Your task to perform on an android device: turn on the 12-hour format for clock Image 0: 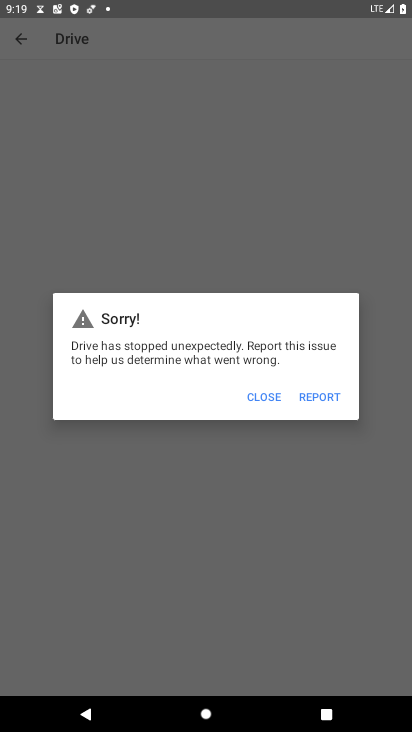
Step 0: press home button
Your task to perform on an android device: turn on the 12-hour format for clock Image 1: 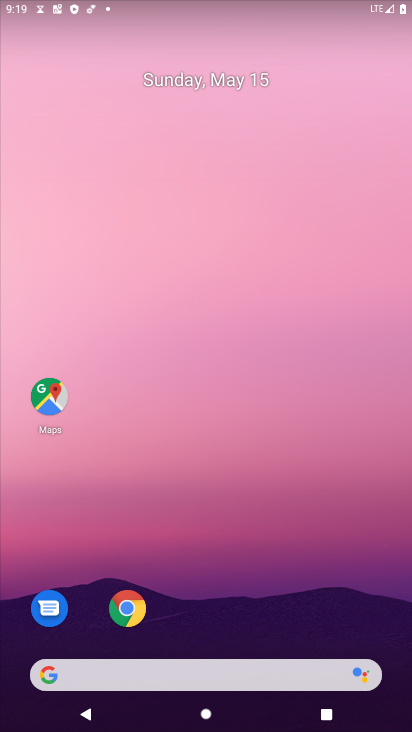
Step 1: drag from (282, 553) to (211, 0)
Your task to perform on an android device: turn on the 12-hour format for clock Image 2: 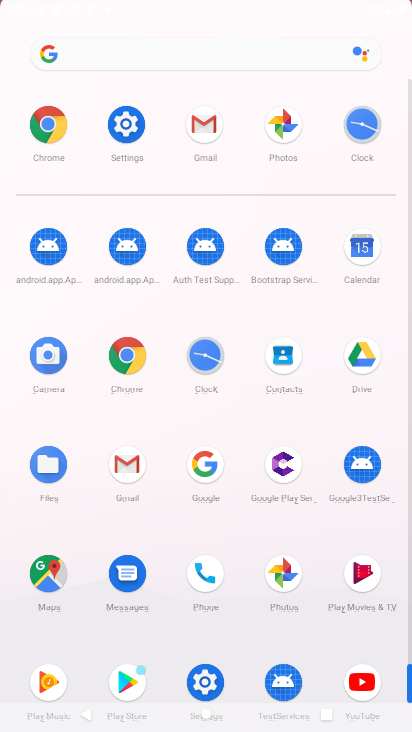
Step 2: click (366, 210)
Your task to perform on an android device: turn on the 12-hour format for clock Image 3: 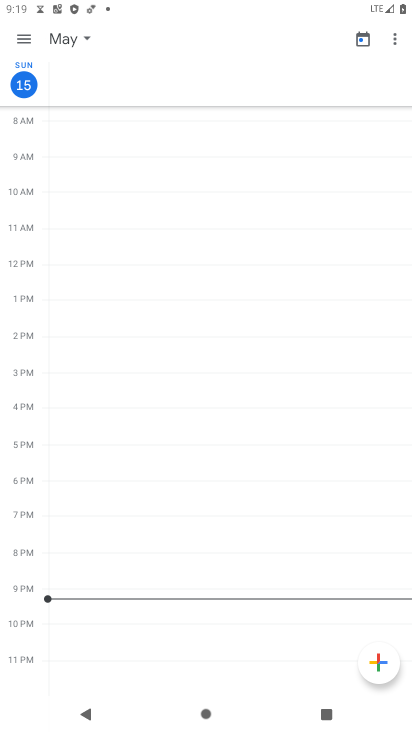
Step 3: press home button
Your task to perform on an android device: turn on the 12-hour format for clock Image 4: 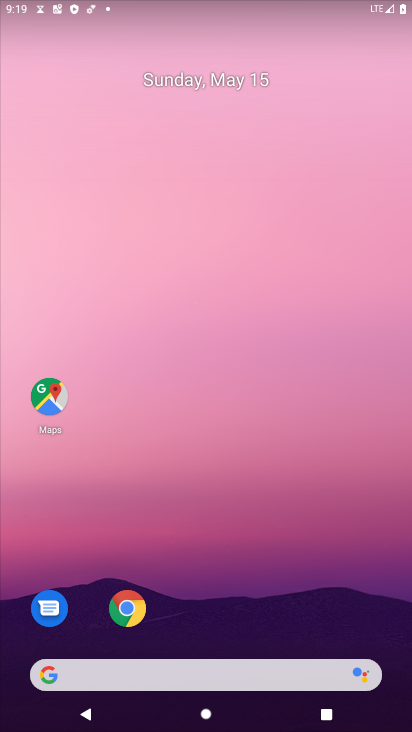
Step 4: drag from (312, 543) to (223, 4)
Your task to perform on an android device: turn on the 12-hour format for clock Image 5: 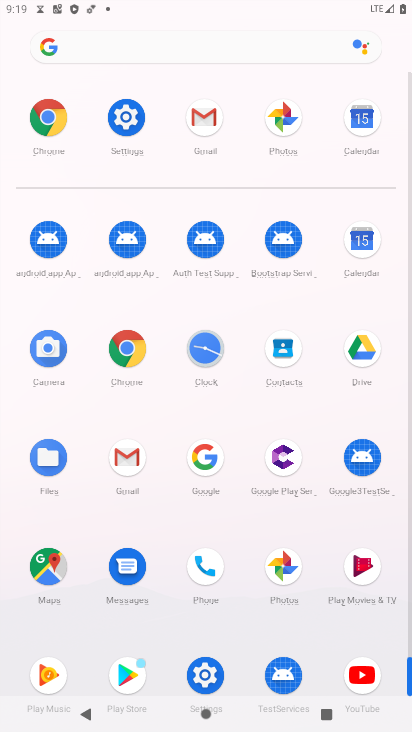
Step 5: click (201, 343)
Your task to perform on an android device: turn on the 12-hour format for clock Image 6: 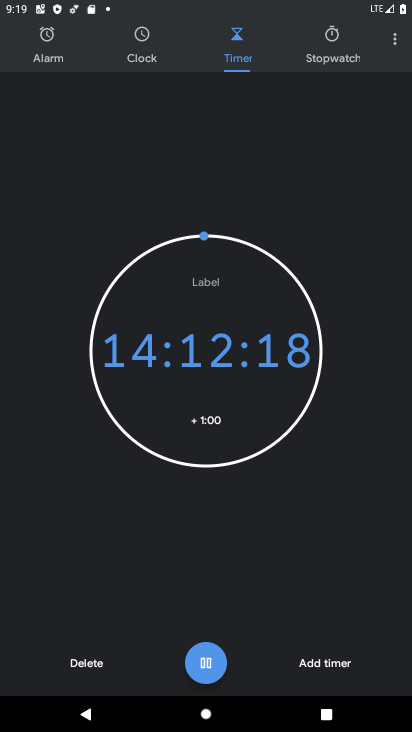
Step 6: click (398, 36)
Your task to perform on an android device: turn on the 12-hour format for clock Image 7: 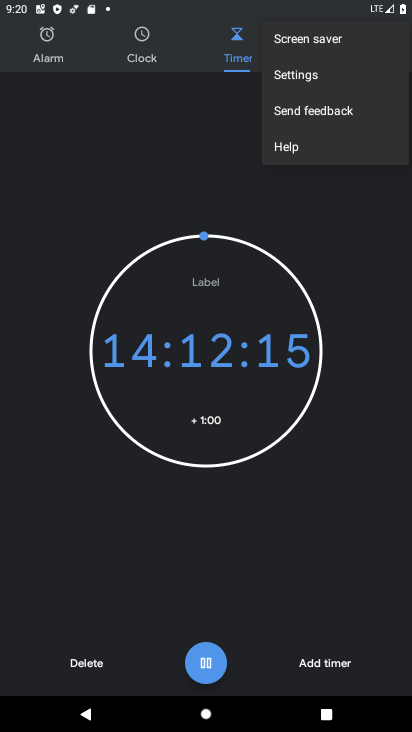
Step 7: click (320, 77)
Your task to perform on an android device: turn on the 12-hour format for clock Image 8: 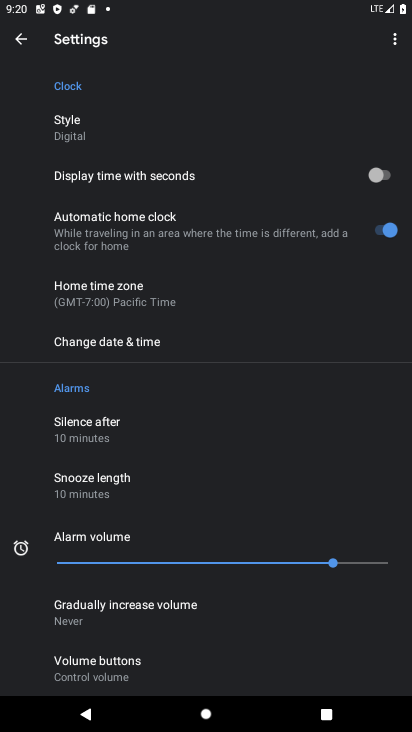
Step 8: drag from (176, 568) to (123, 258)
Your task to perform on an android device: turn on the 12-hour format for clock Image 9: 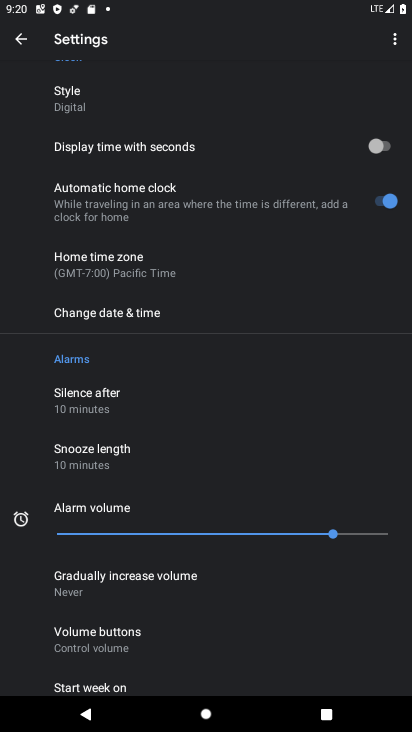
Step 9: drag from (144, 646) to (64, 323)
Your task to perform on an android device: turn on the 12-hour format for clock Image 10: 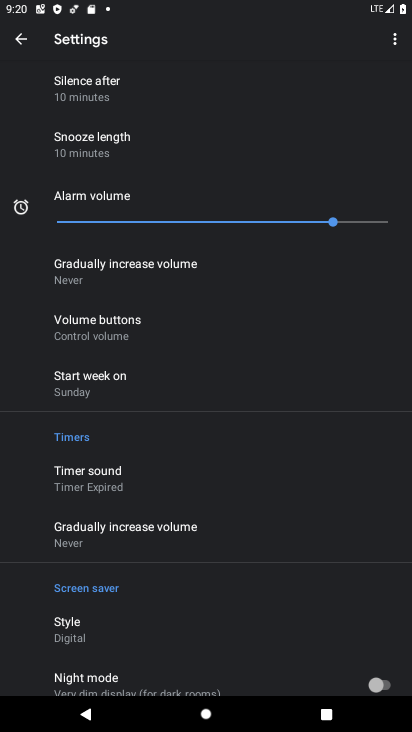
Step 10: drag from (169, 155) to (209, 496)
Your task to perform on an android device: turn on the 12-hour format for clock Image 11: 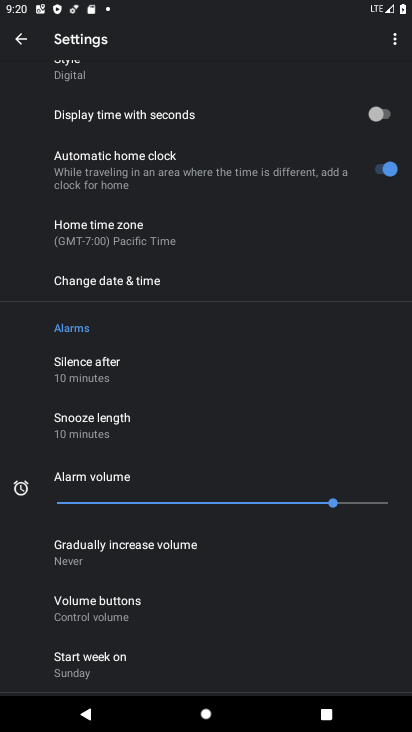
Step 11: drag from (178, 634) to (83, 250)
Your task to perform on an android device: turn on the 12-hour format for clock Image 12: 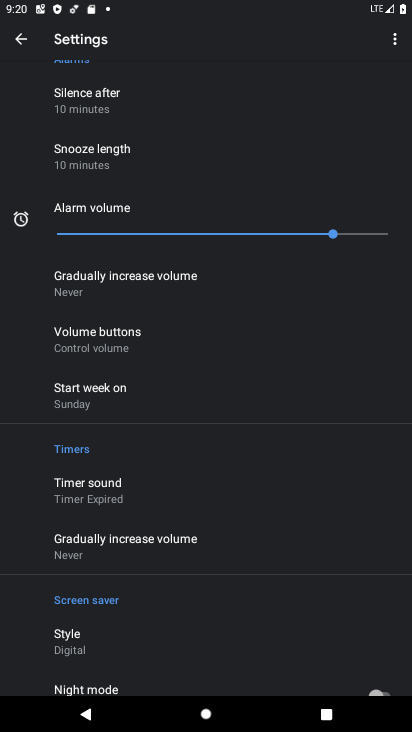
Step 12: drag from (130, 637) to (109, 240)
Your task to perform on an android device: turn on the 12-hour format for clock Image 13: 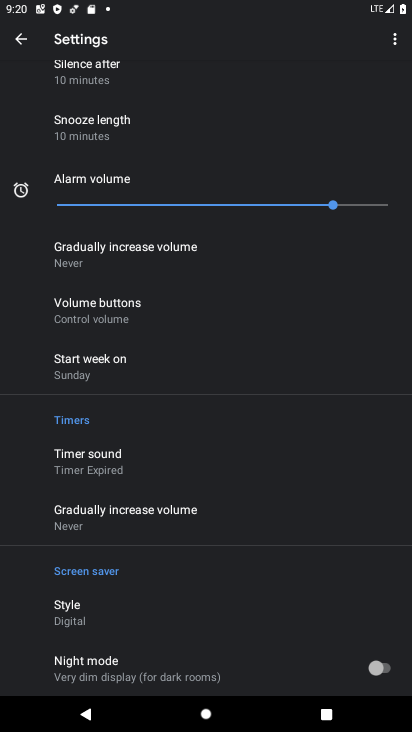
Step 13: drag from (160, 630) to (116, 310)
Your task to perform on an android device: turn on the 12-hour format for clock Image 14: 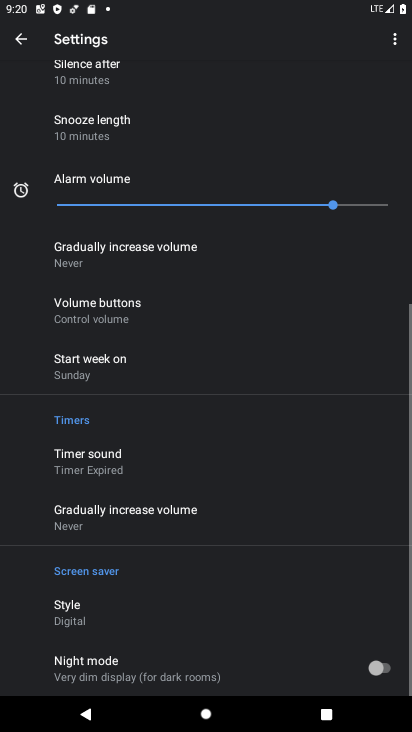
Step 14: drag from (179, 244) to (212, 595)
Your task to perform on an android device: turn on the 12-hour format for clock Image 15: 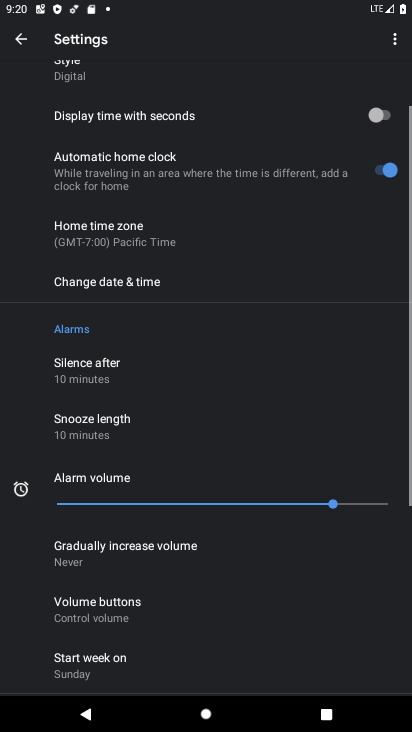
Step 15: drag from (217, 147) to (221, 584)
Your task to perform on an android device: turn on the 12-hour format for clock Image 16: 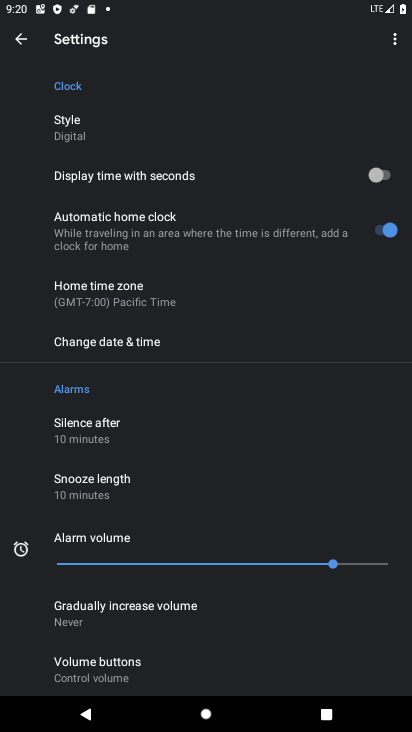
Step 16: drag from (215, 328) to (235, 692)
Your task to perform on an android device: turn on the 12-hour format for clock Image 17: 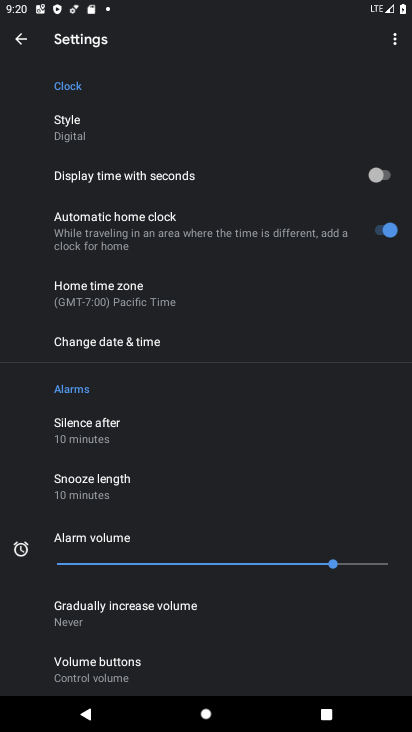
Step 17: click (24, 37)
Your task to perform on an android device: turn on the 12-hour format for clock Image 18: 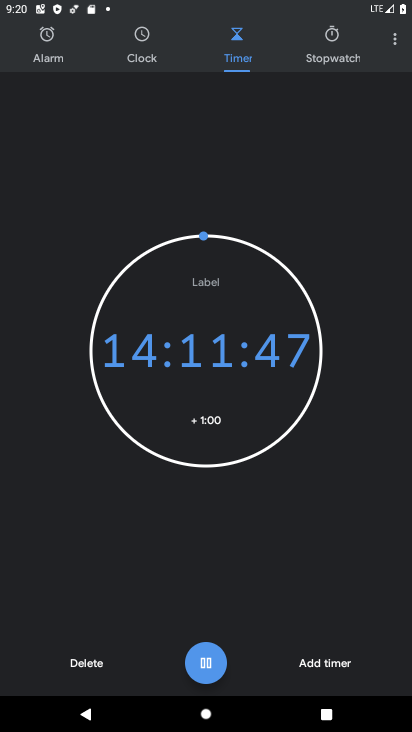
Step 18: click (391, 41)
Your task to perform on an android device: turn on the 12-hour format for clock Image 19: 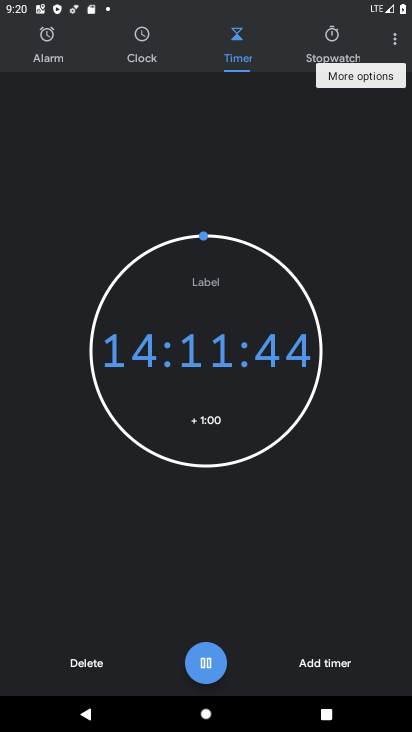
Step 19: click (399, 40)
Your task to perform on an android device: turn on the 12-hour format for clock Image 20: 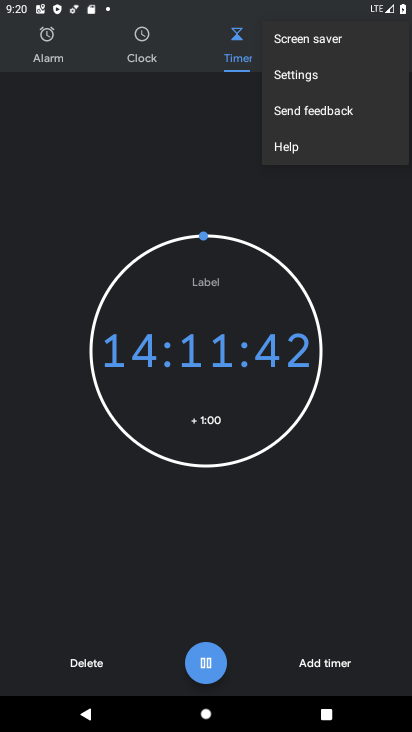
Step 20: click (316, 87)
Your task to perform on an android device: turn on the 12-hour format for clock Image 21: 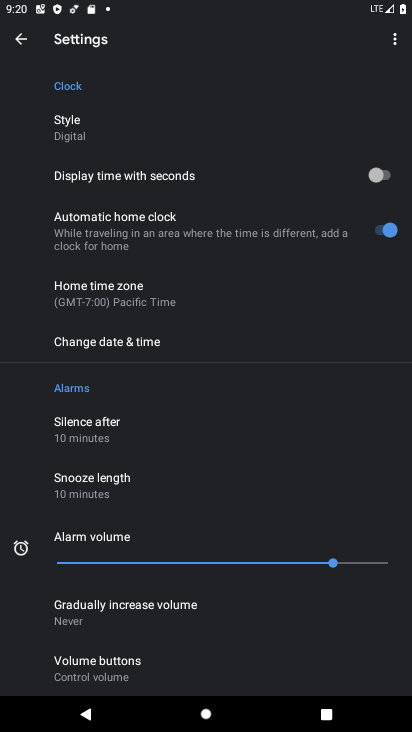
Step 21: click (125, 339)
Your task to perform on an android device: turn on the 12-hour format for clock Image 22: 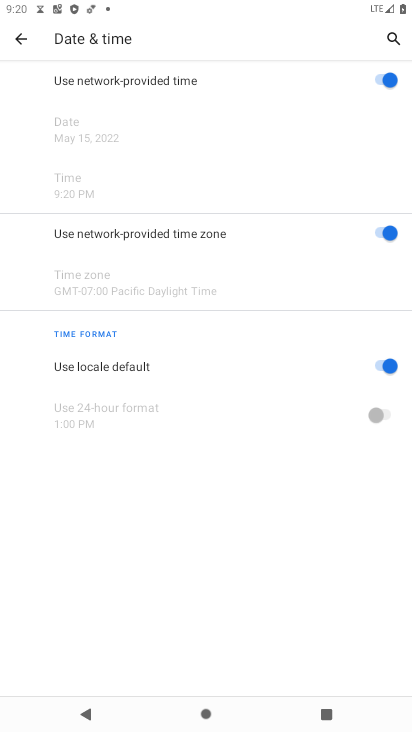
Step 22: click (395, 373)
Your task to perform on an android device: turn on the 12-hour format for clock Image 23: 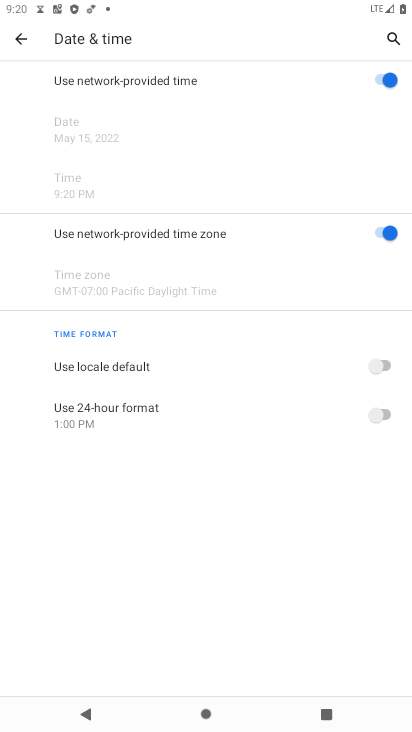
Step 23: click (378, 366)
Your task to perform on an android device: turn on the 12-hour format for clock Image 24: 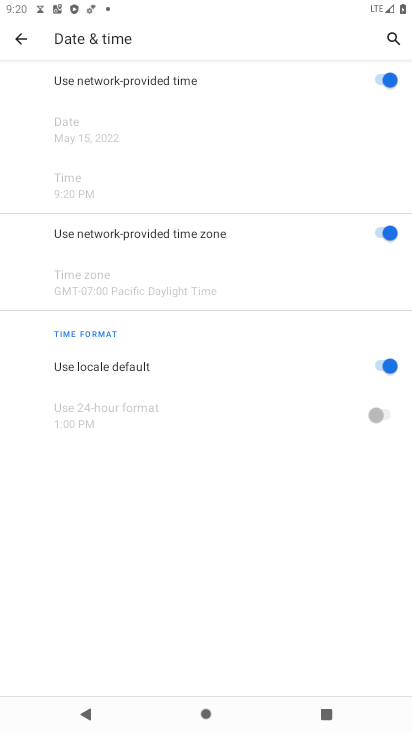
Step 24: task complete